Your task to perform on an android device: turn on the 24-hour format for clock Image 0: 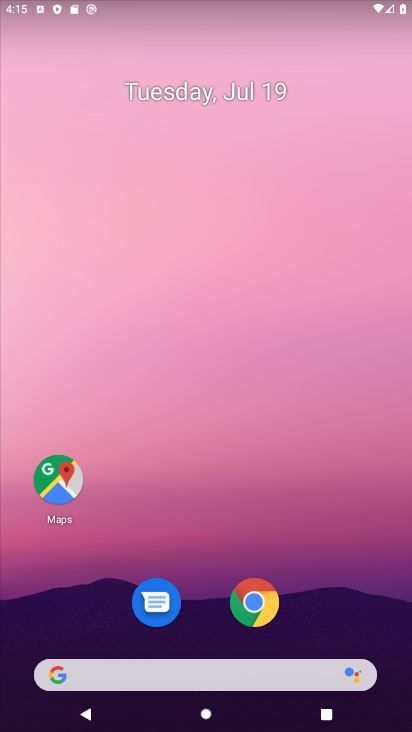
Step 0: drag from (221, 614) to (239, 2)
Your task to perform on an android device: turn on the 24-hour format for clock Image 1: 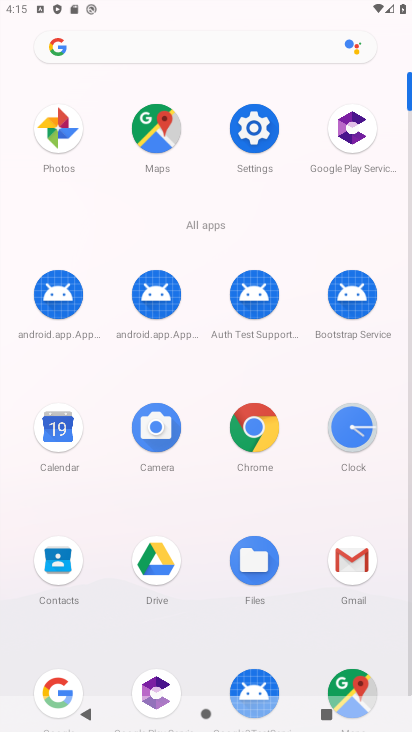
Step 1: click (347, 428)
Your task to perform on an android device: turn on the 24-hour format for clock Image 2: 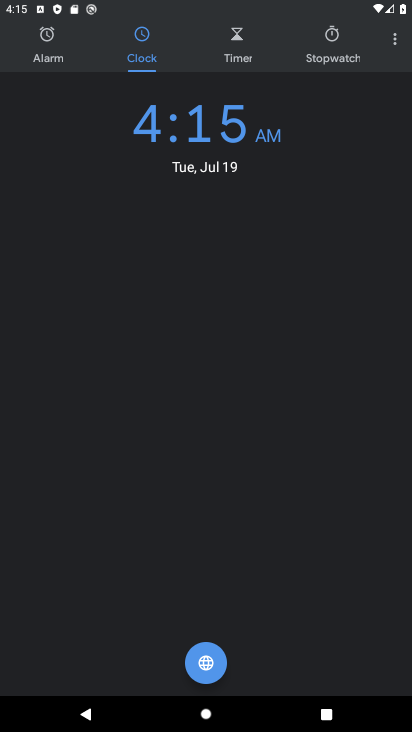
Step 2: click (391, 46)
Your task to perform on an android device: turn on the 24-hour format for clock Image 3: 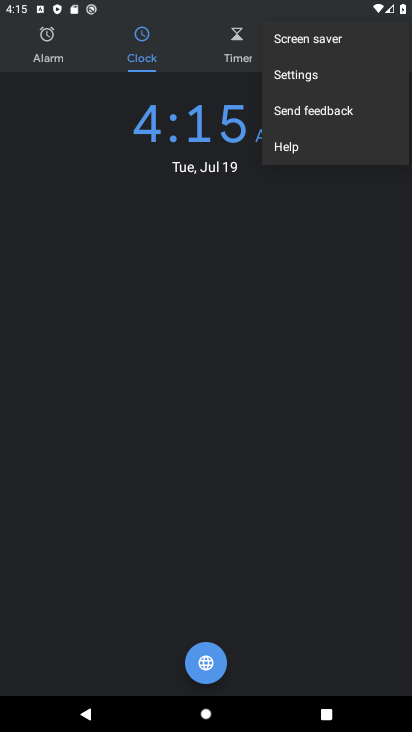
Step 3: click (294, 88)
Your task to perform on an android device: turn on the 24-hour format for clock Image 4: 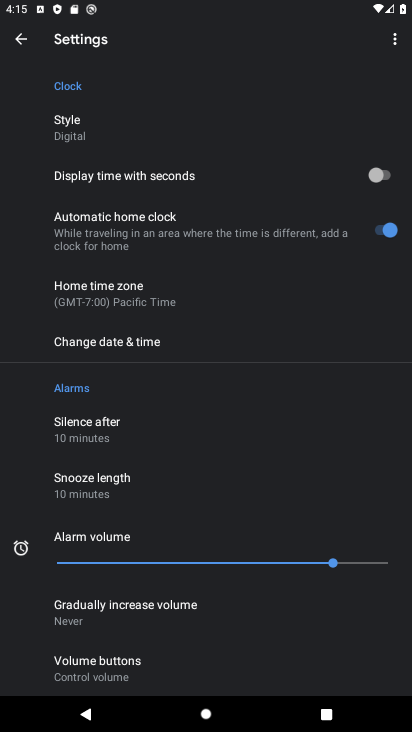
Step 4: click (293, 185)
Your task to perform on an android device: turn on the 24-hour format for clock Image 5: 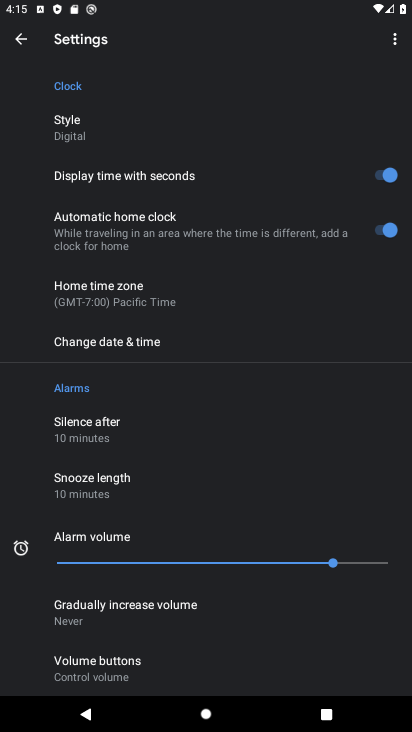
Step 5: click (212, 344)
Your task to perform on an android device: turn on the 24-hour format for clock Image 6: 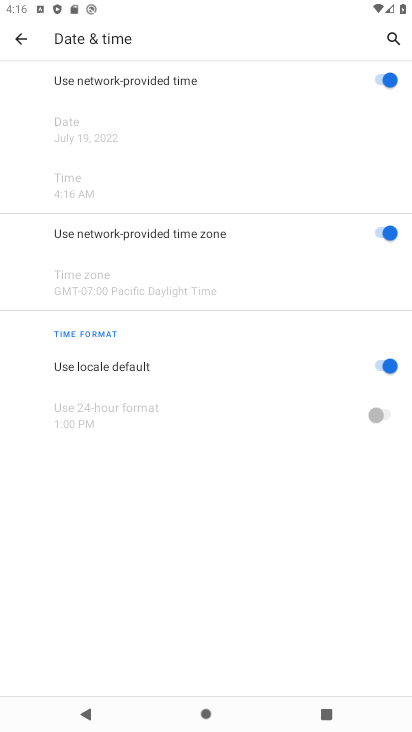
Step 6: click (391, 355)
Your task to perform on an android device: turn on the 24-hour format for clock Image 7: 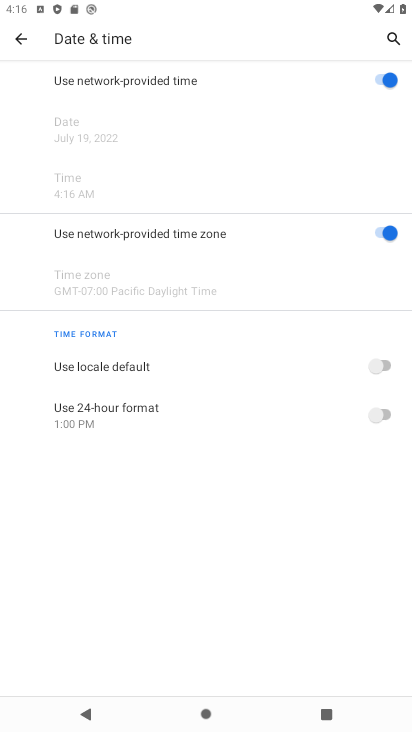
Step 7: click (387, 417)
Your task to perform on an android device: turn on the 24-hour format for clock Image 8: 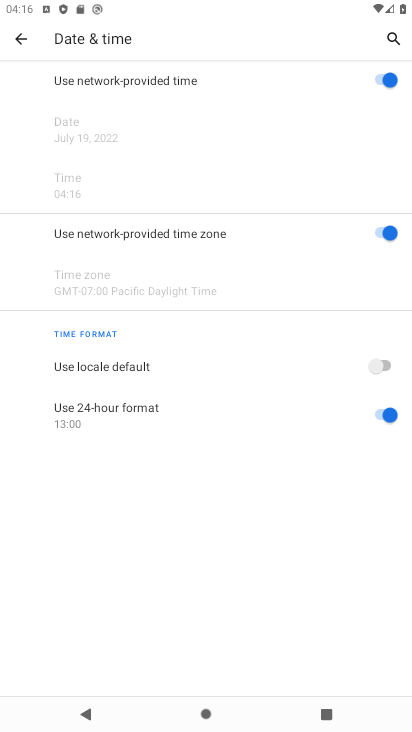
Step 8: task complete